Your task to perform on an android device: toggle priority inbox in the gmail app Image 0: 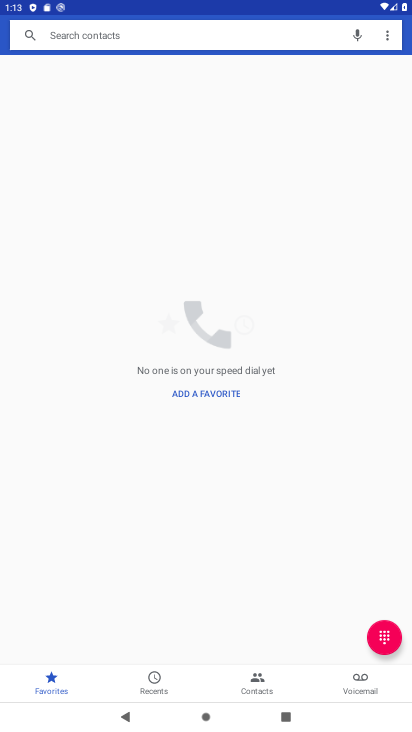
Step 0: press home button
Your task to perform on an android device: toggle priority inbox in the gmail app Image 1: 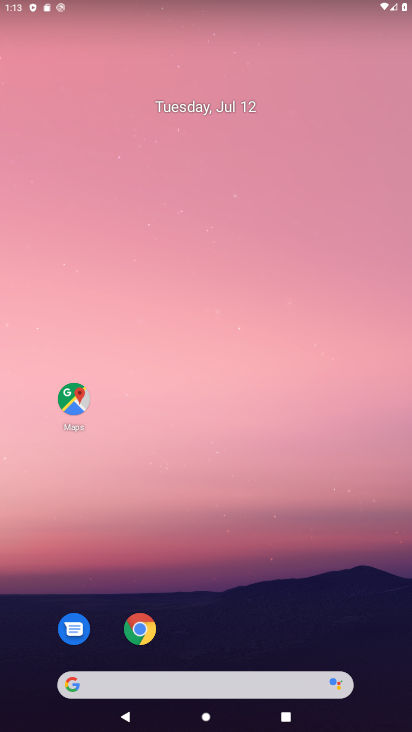
Step 1: drag from (229, 586) to (253, 147)
Your task to perform on an android device: toggle priority inbox in the gmail app Image 2: 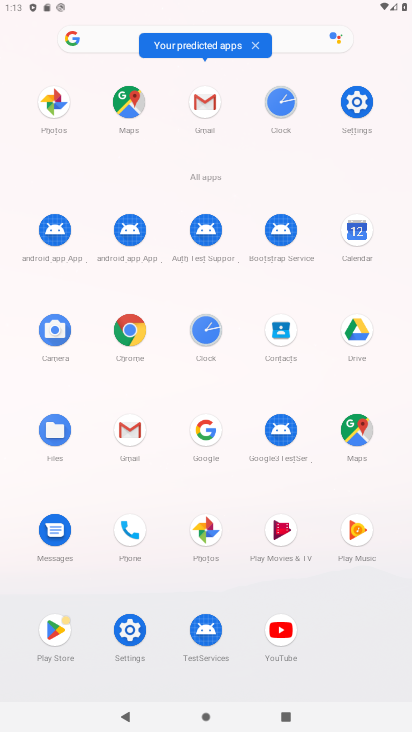
Step 2: click (205, 107)
Your task to perform on an android device: toggle priority inbox in the gmail app Image 3: 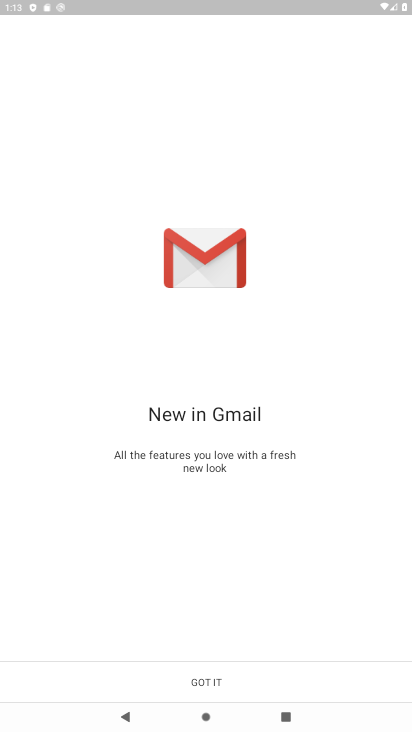
Step 3: click (212, 695)
Your task to perform on an android device: toggle priority inbox in the gmail app Image 4: 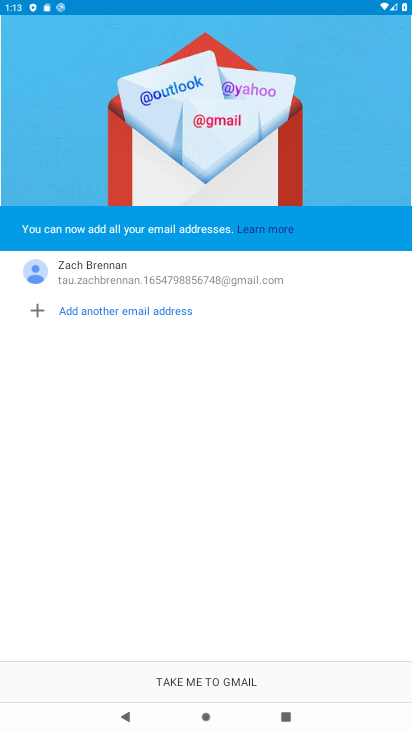
Step 4: click (212, 684)
Your task to perform on an android device: toggle priority inbox in the gmail app Image 5: 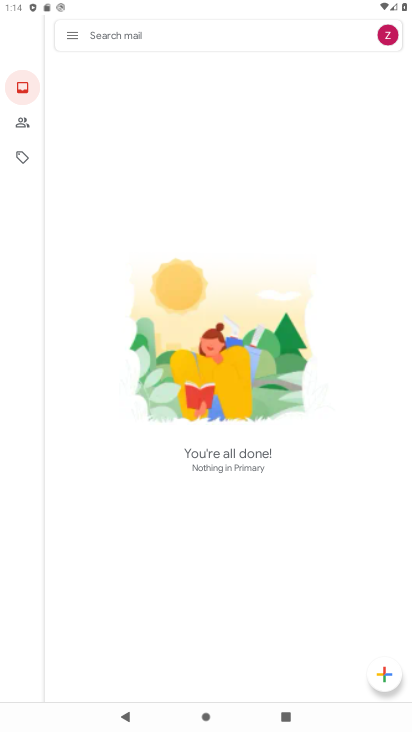
Step 5: click (69, 36)
Your task to perform on an android device: toggle priority inbox in the gmail app Image 6: 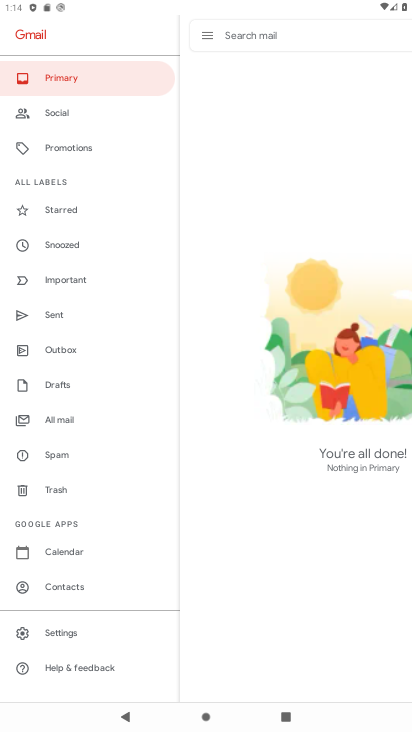
Step 6: click (55, 629)
Your task to perform on an android device: toggle priority inbox in the gmail app Image 7: 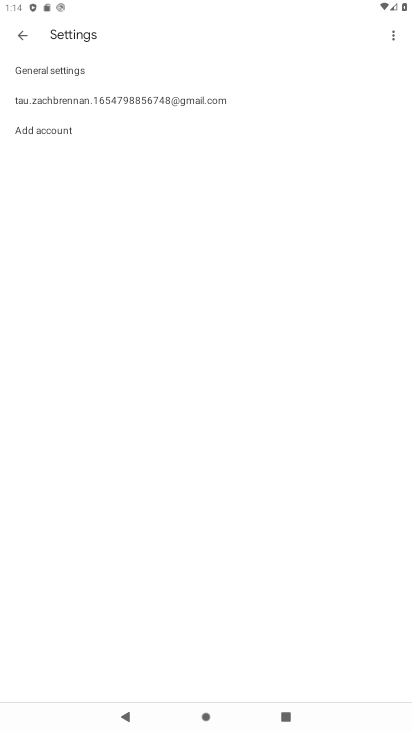
Step 7: click (55, 100)
Your task to perform on an android device: toggle priority inbox in the gmail app Image 8: 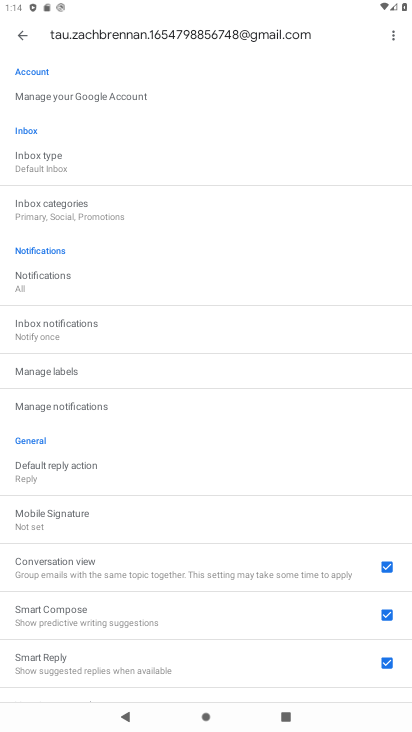
Step 8: click (58, 170)
Your task to perform on an android device: toggle priority inbox in the gmail app Image 9: 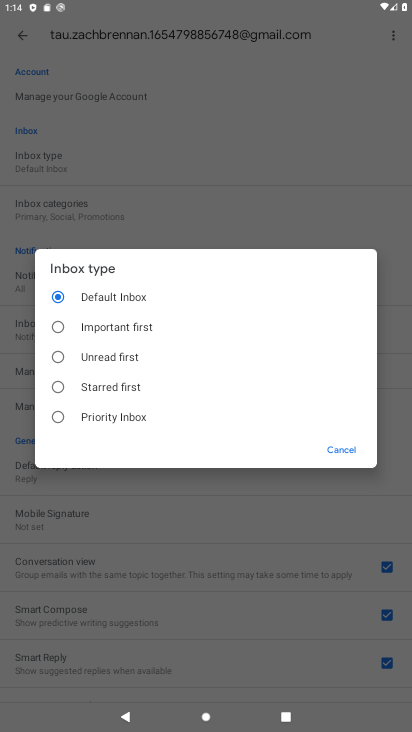
Step 9: click (64, 415)
Your task to perform on an android device: toggle priority inbox in the gmail app Image 10: 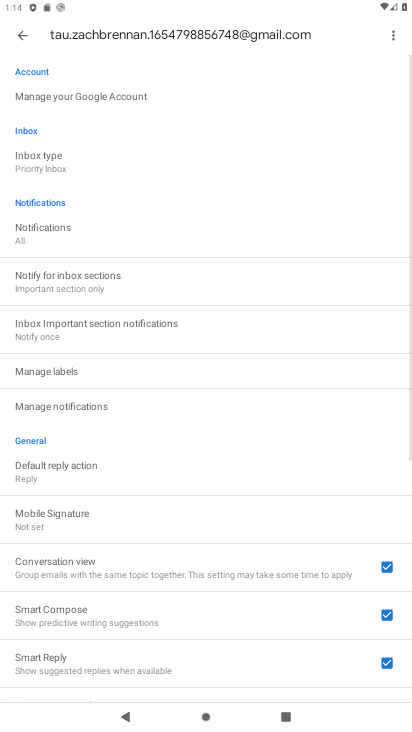
Step 10: task complete